Your task to perform on an android device: manage bookmarks in the chrome app Image 0: 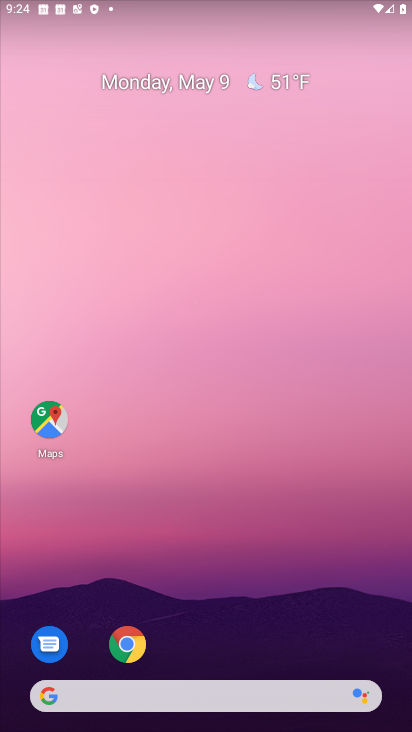
Step 0: drag from (179, 671) to (150, 66)
Your task to perform on an android device: manage bookmarks in the chrome app Image 1: 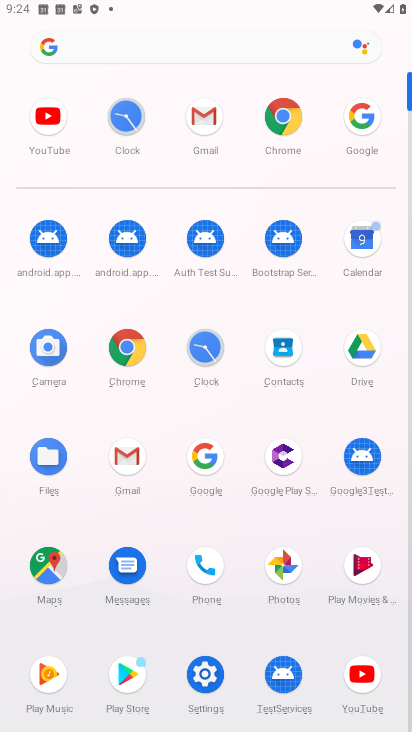
Step 1: click (295, 115)
Your task to perform on an android device: manage bookmarks in the chrome app Image 2: 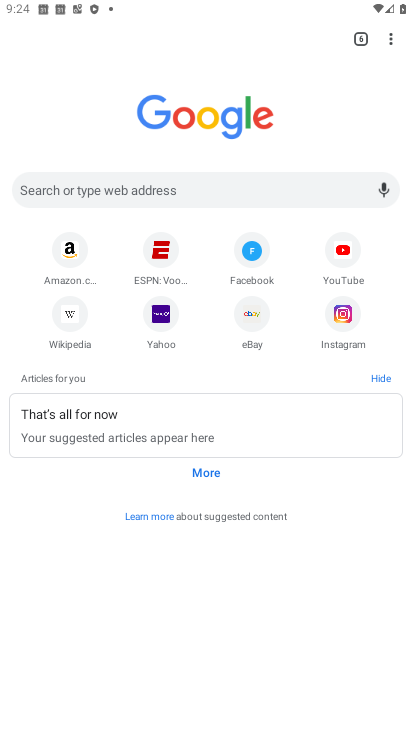
Step 2: click (384, 38)
Your task to perform on an android device: manage bookmarks in the chrome app Image 3: 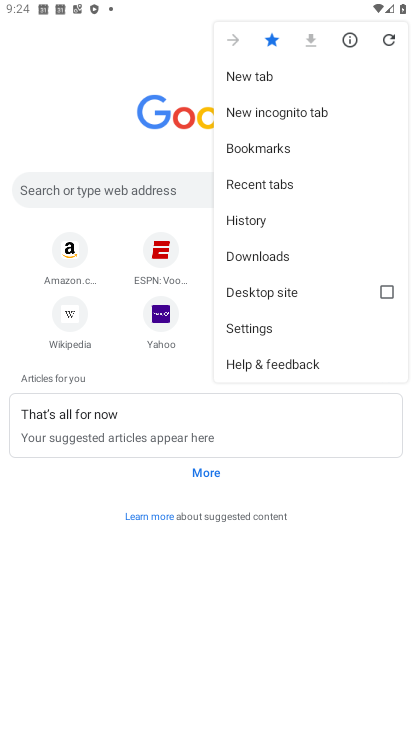
Step 3: click (273, 153)
Your task to perform on an android device: manage bookmarks in the chrome app Image 4: 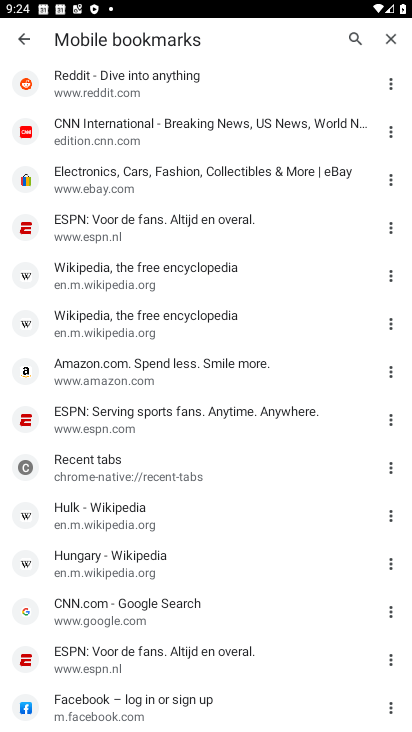
Step 4: task complete